Your task to perform on an android device: Go to ESPN.com Image 0: 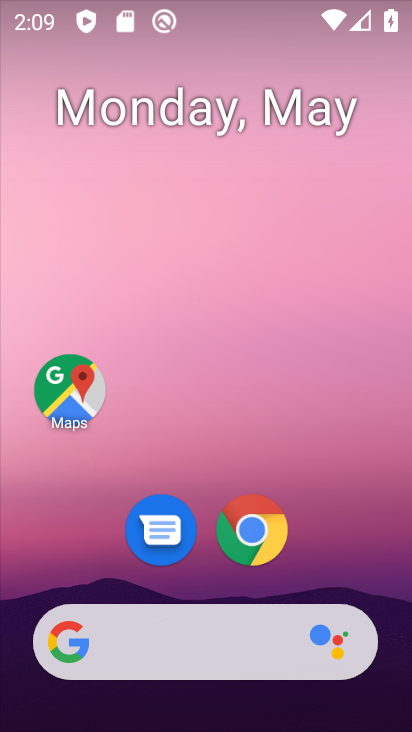
Step 0: click (250, 549)
Your task to perform on an android device: Go to ESPN.com Image 1: 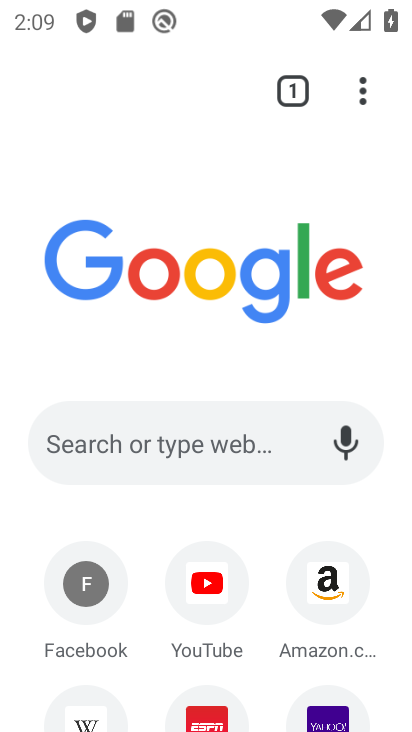
Step 1: click (192, 724)
Your task to perform on an android device: Go to ESPN.com Image 2: 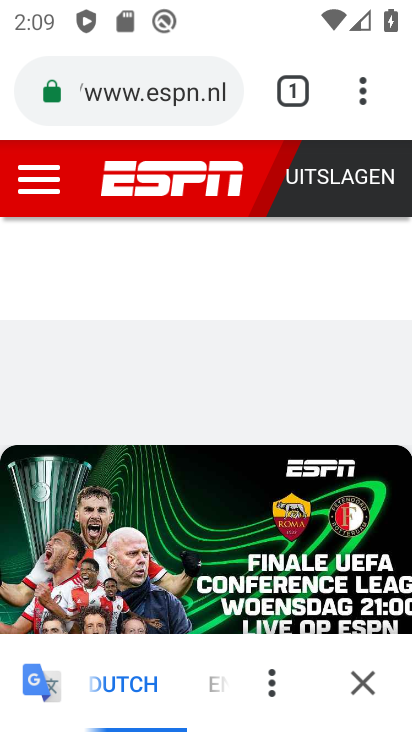
Step 2: task complete